Your task to perform on an android device: Go to Google Image 0: 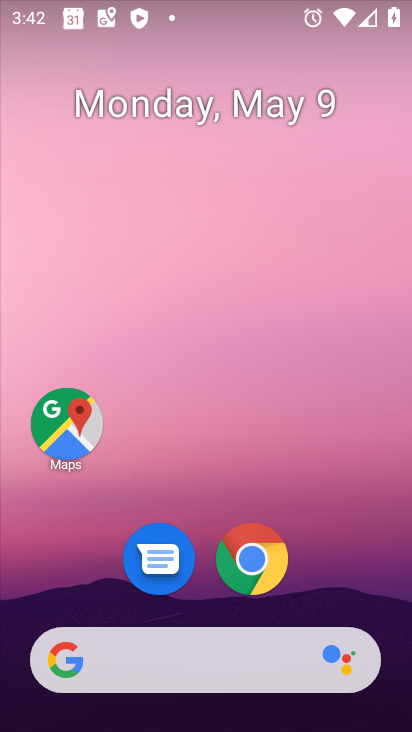
Step 0: drag from (229, 726) to (216, 56)
Your task to perform on an android device: Go to Google Image 1: 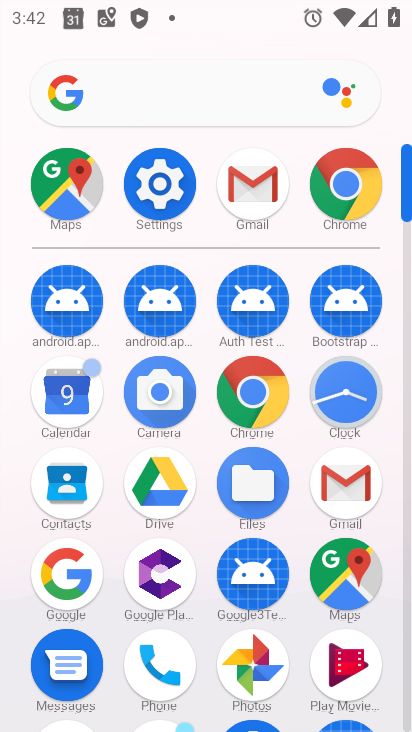
Step 1: click (68, 570)
Your task to perform on an android device: Go to Google Image 2: 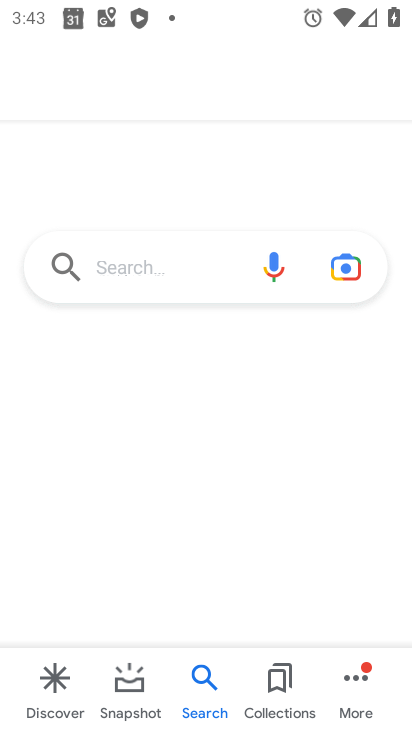
Step 2: task complete